Your task to perform on an android device: What is the recent news? Image 0: 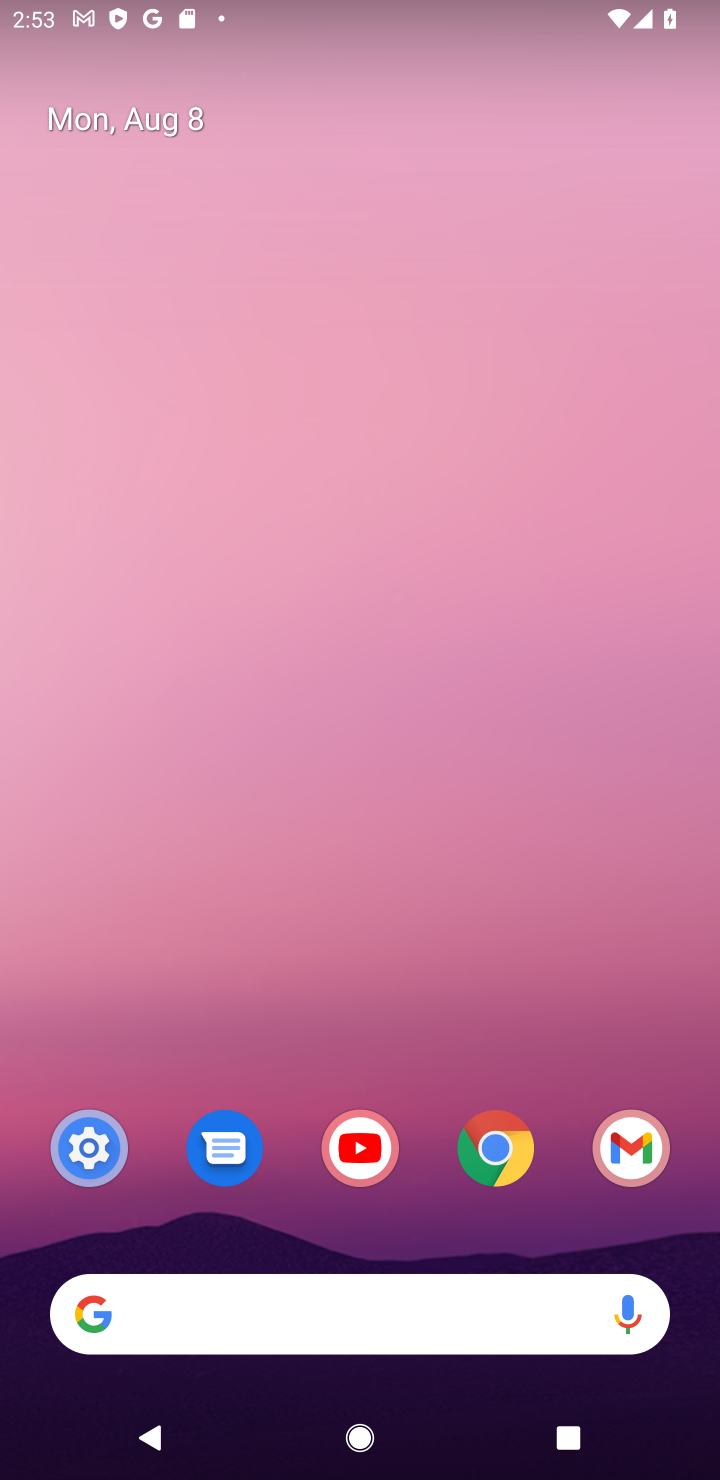
Step 0: click (250, 1306)
Your task to perform on an android device: What is the recent news? Image 1: 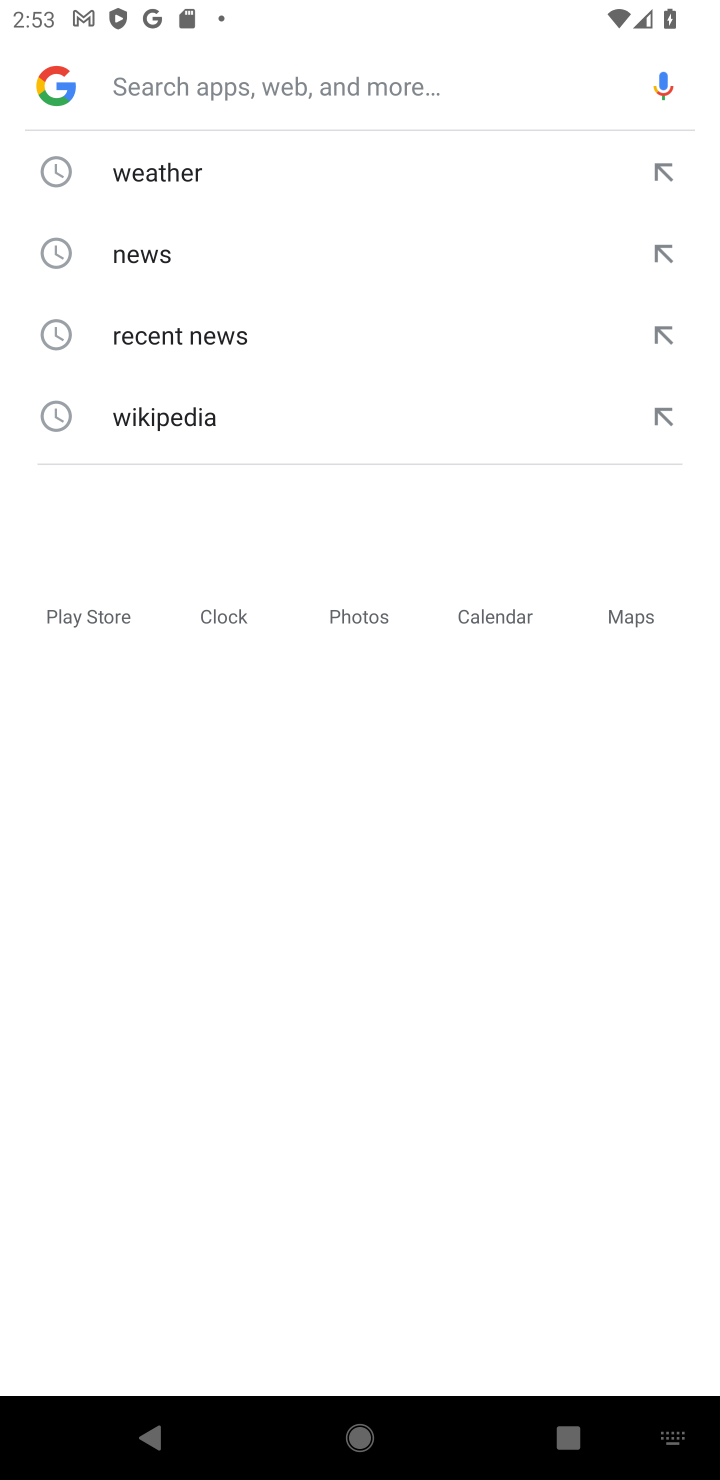
Step 1: type "what is the recent news"
Your task to perform on an android device: What is the recent news? Image 2: 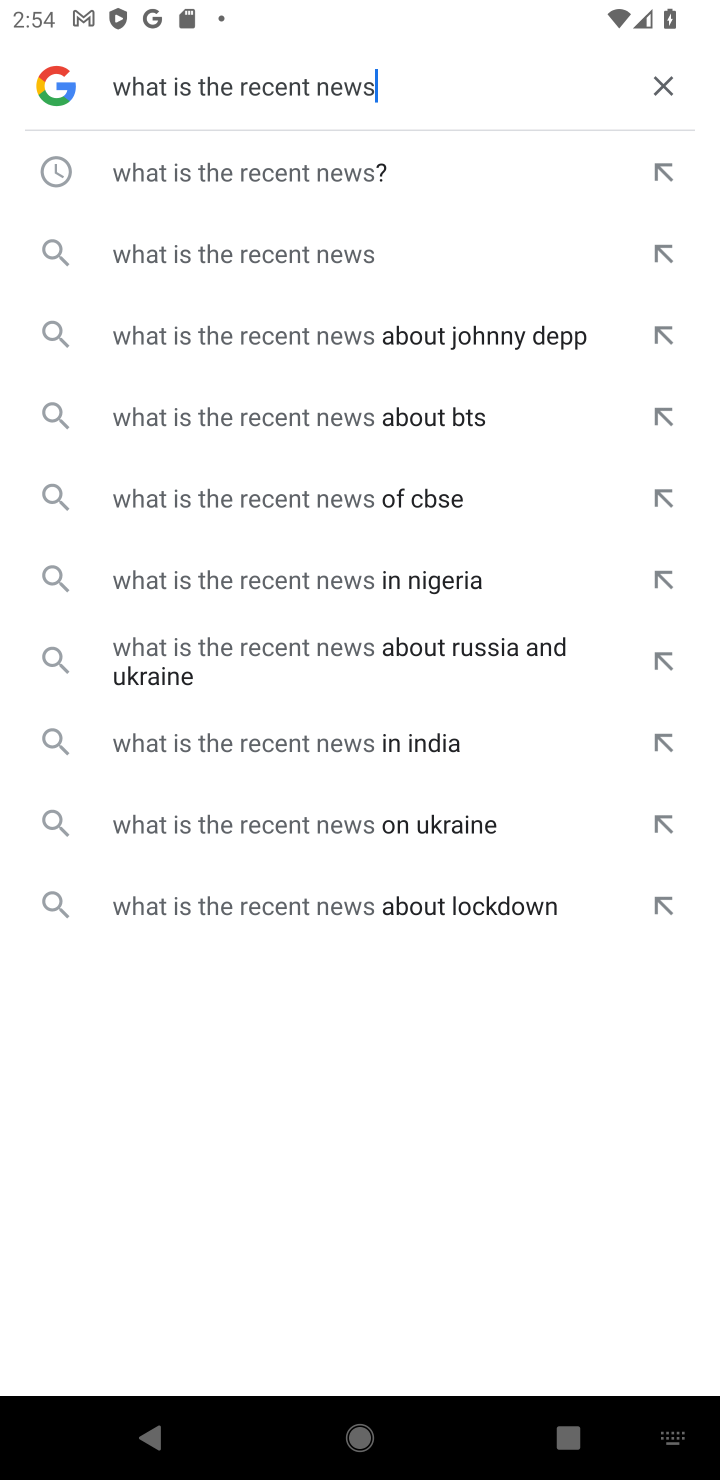
Step 2: click (413, 165)
Your task to perform on an android device: What is the recent news? Image 3: 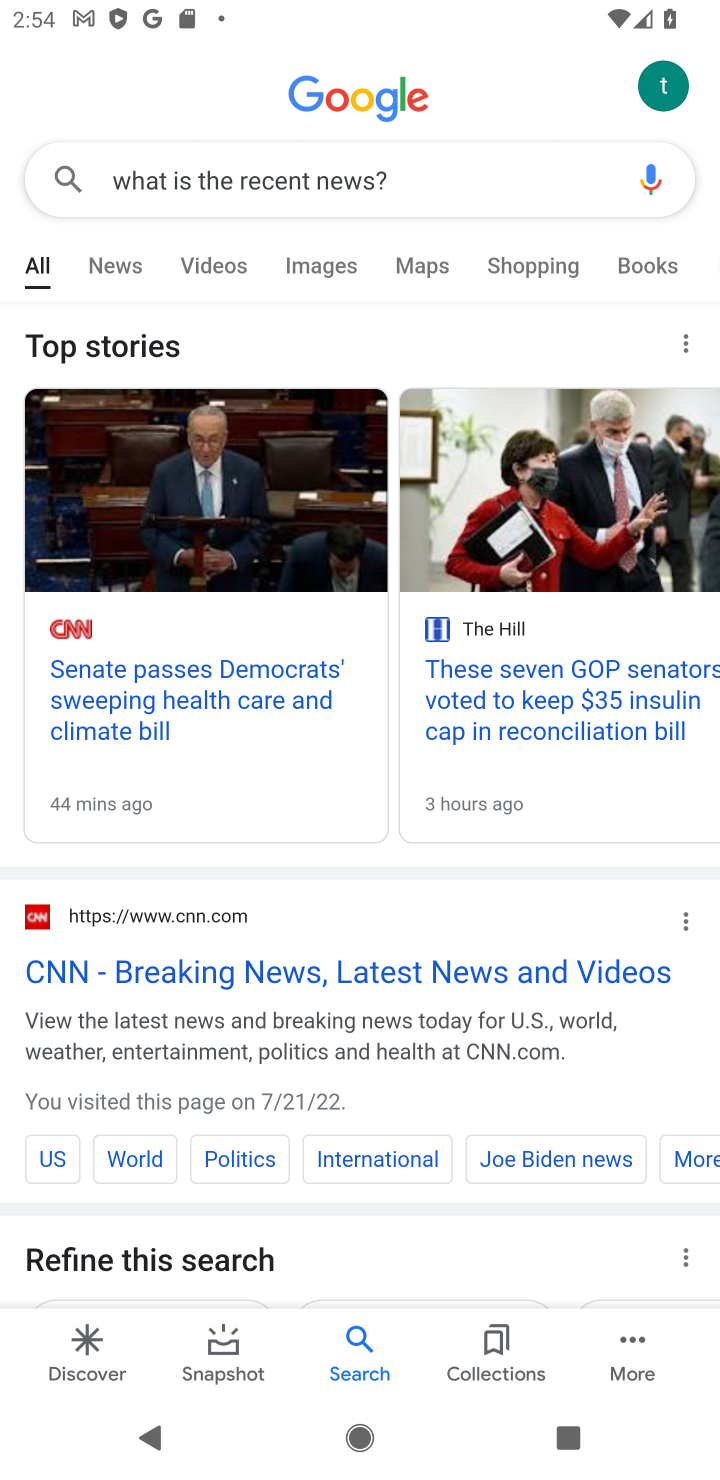
Step 3: task complete